Your task to perform on an android device: turn off wifi Image 0: 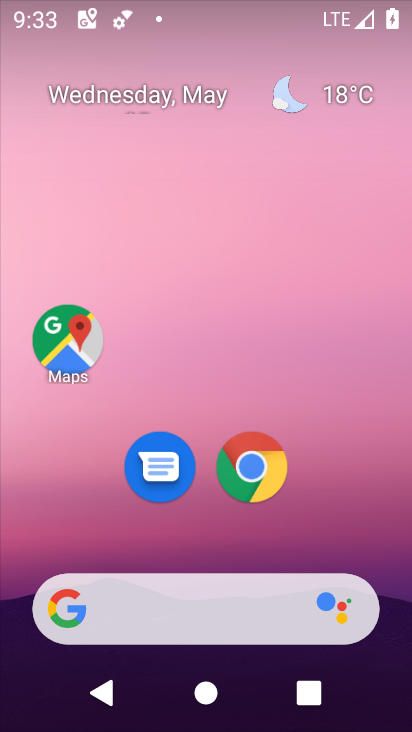
Step 0: drag from (330, 506) to (316, 117)
Your task to perform on an android device: turn off wifi Image 1: 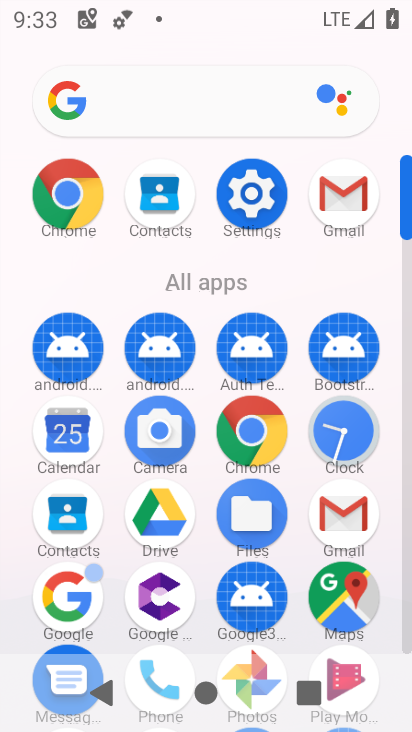
Step 1: click (264, 209)
Your task to perform on an android device: turn off wifi Image 2: 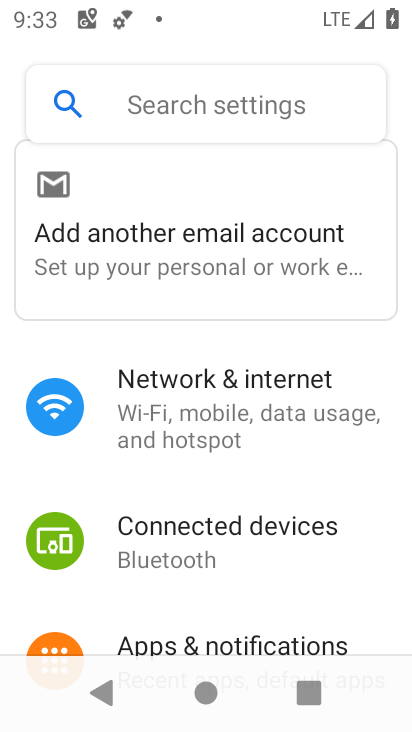
Step 2: click (225, 434)
Your task to perform on an android device: turn off wifi Image 3: 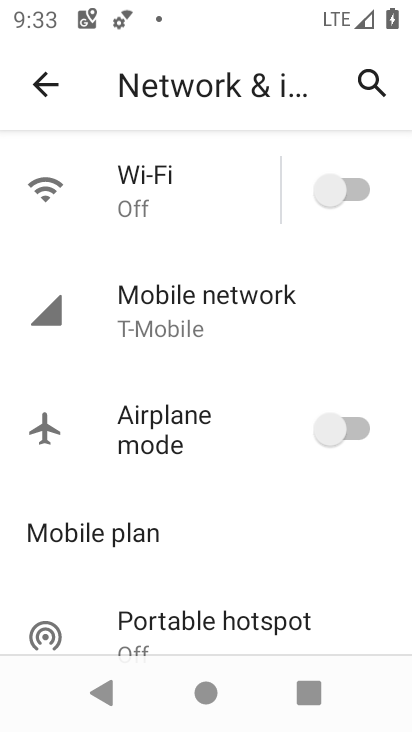
Step 3: click (214, 177)
Your task to perform on an android device: turn off wifi Image 4: 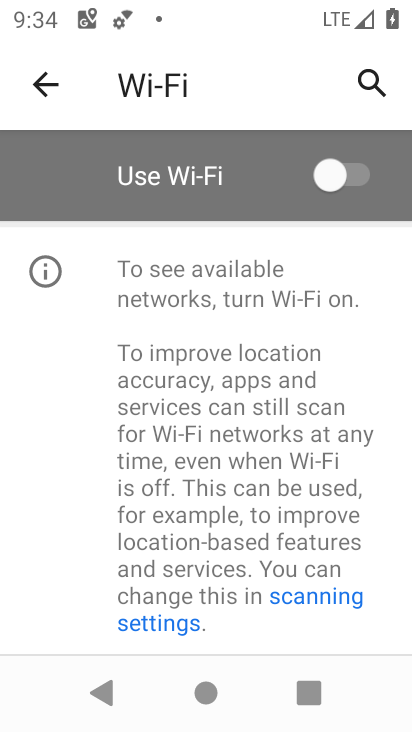
Step 4: task complete